Your task to perform on an android device: View the shopping cart on amazon.com. Add alienware area 51 to the cart on amazon.com, then select checkout. Image 0: 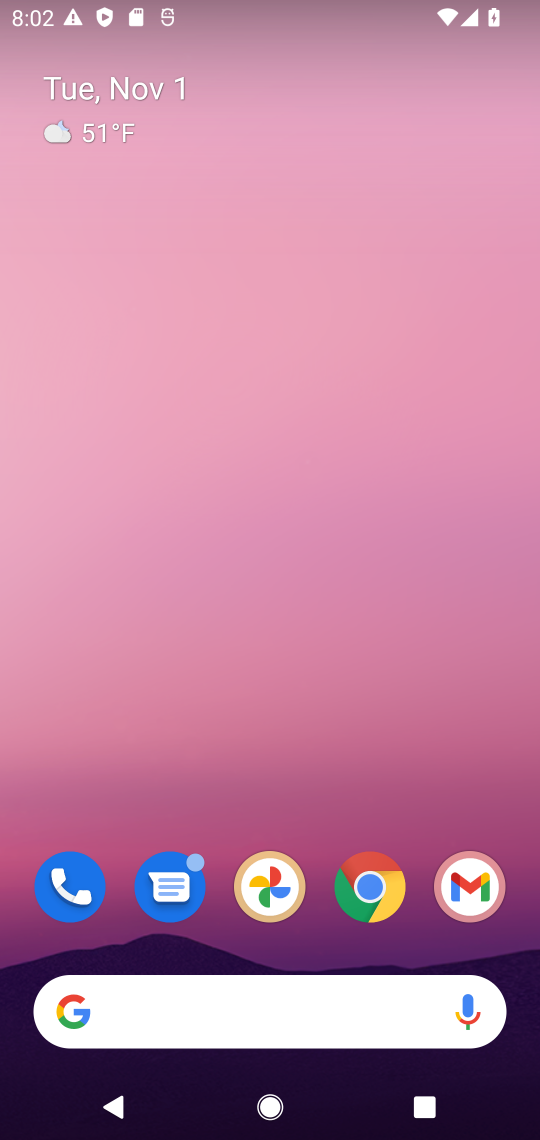
Step 0: drag from (181, 947) to (200, 296)
Your task to perform on an android device: View the shopping cart on amazon.com. Add alienware area 51 to the cart on amazon.com, then select checkout. Image 1: 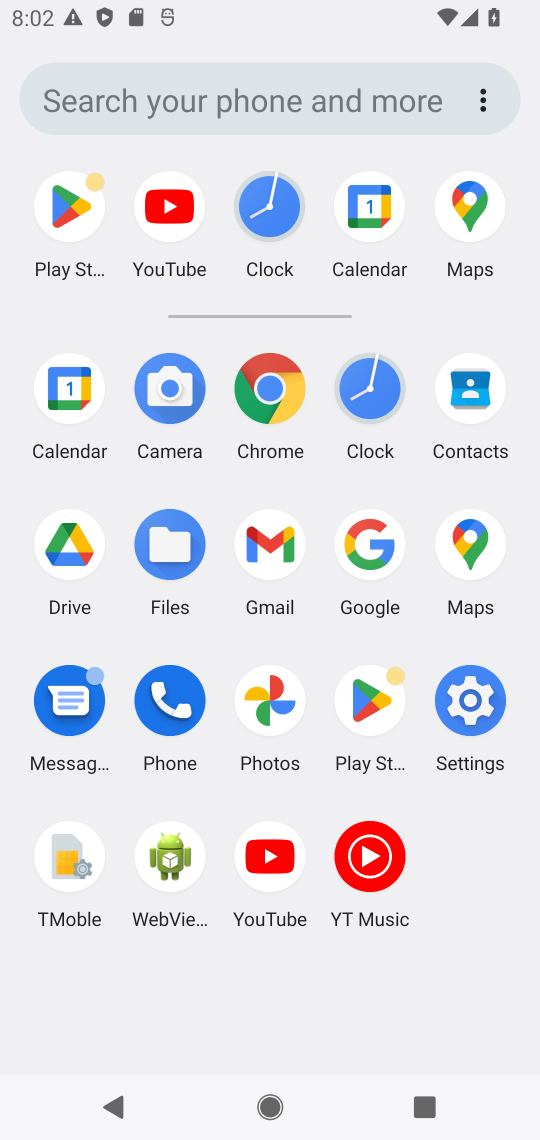
Step 1: click (379, 544)
Your task to perform on an android device: View the shopping cart on amazon.com. Add alienware area 51 to the cart on amazon.com, then select checkout. Image 2: 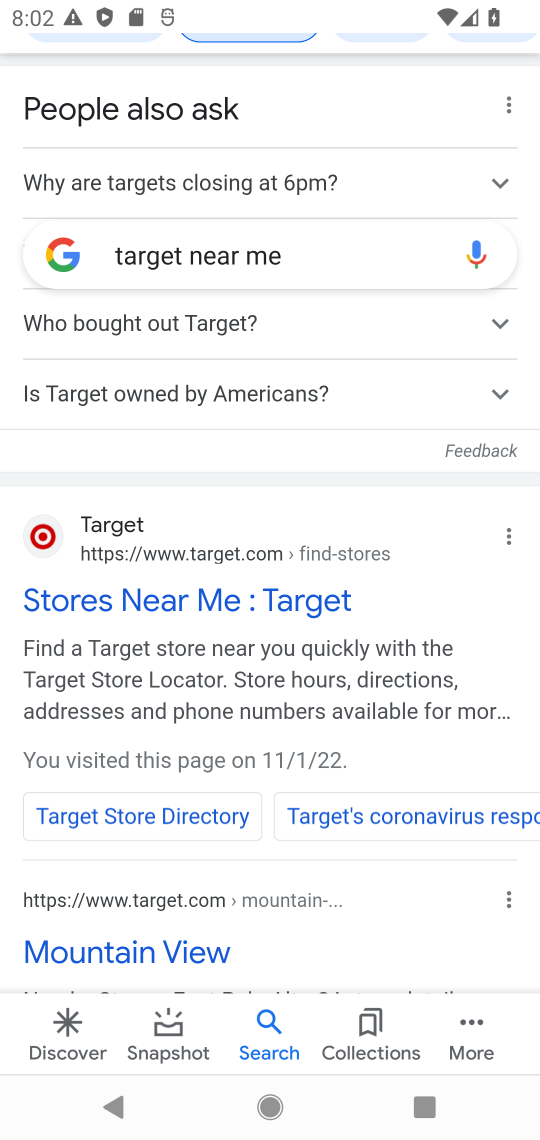
Step 2: click (301, 229)
Your task to perform on an android device: View the shopping cart on amazon.com. Add alienware area 51 to the cart on amazon.com, then select checkout. Image 3: 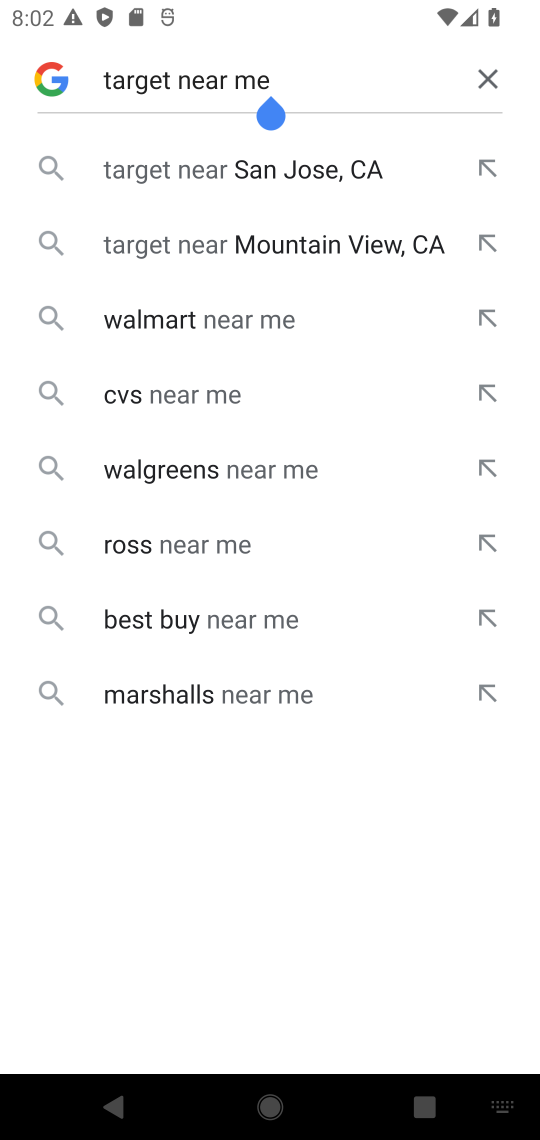
Step 3: click (489, 88)
Your task to perform on an android device: View the shopping cart on amazon.com. Add alienware area 51 to the cart on amazon.com, then select checkout. Image 4: 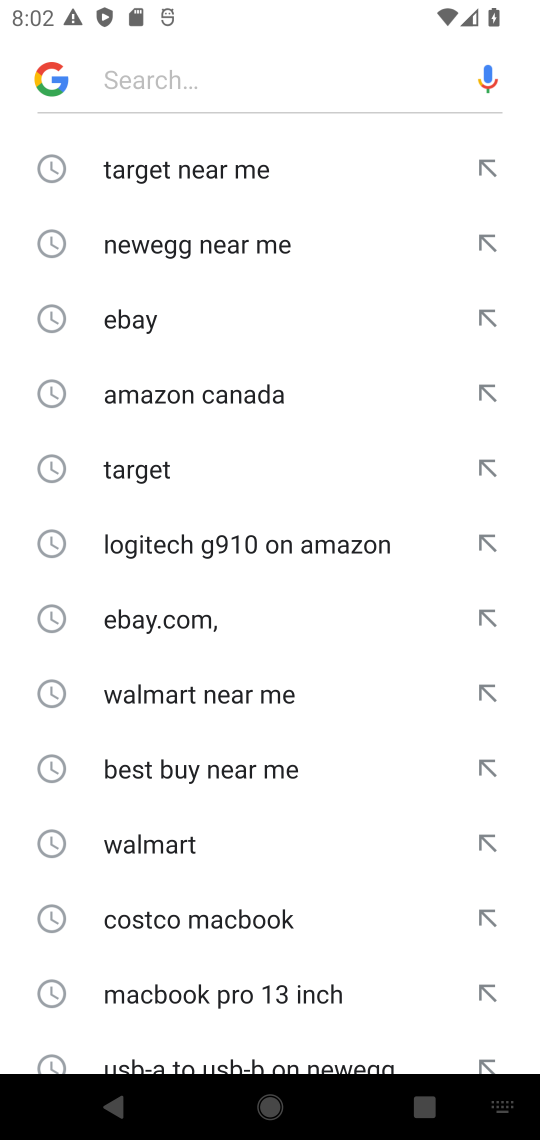
Step 4: click (125, 61)
Your task to perform on an android device: View the shopping cart on amazon.com. Add alienware area 51 to the cart on amazon.com, then select checkout. Image 5: 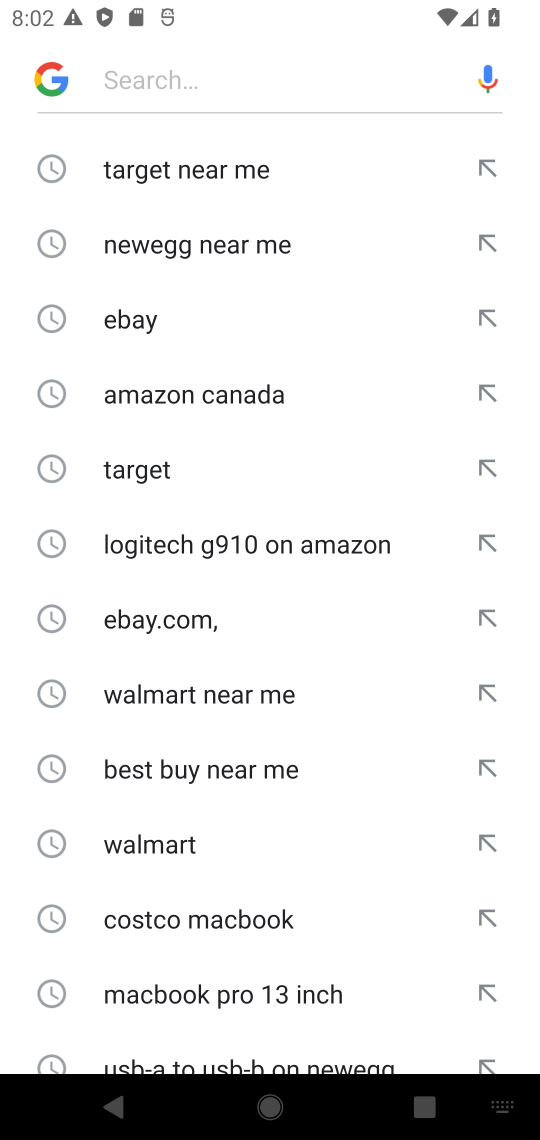
Step 5: type " amazon.com.  "
Your task to perform on an android device: View the shopping cart on amazon.com. Add alienware area 51 to the cart on amazon.com, then select checkout. Image 6: 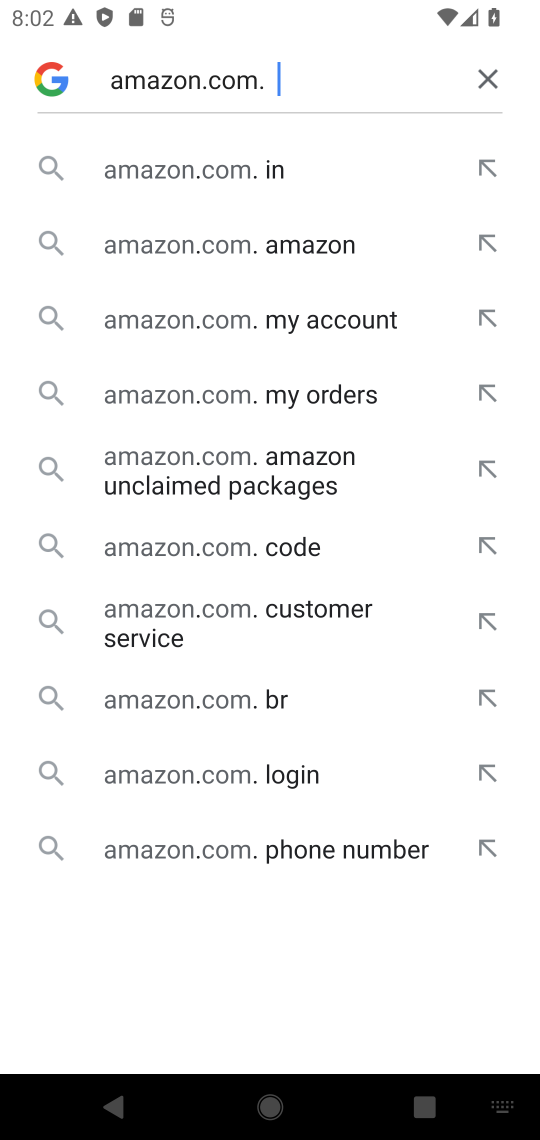
Step 6: click (185, 244)
Your task to perform on an android device: View the shopping cart on amazon.com. Add alienware area 51 to the cart on amazon.com, then select checkout. Image 7: 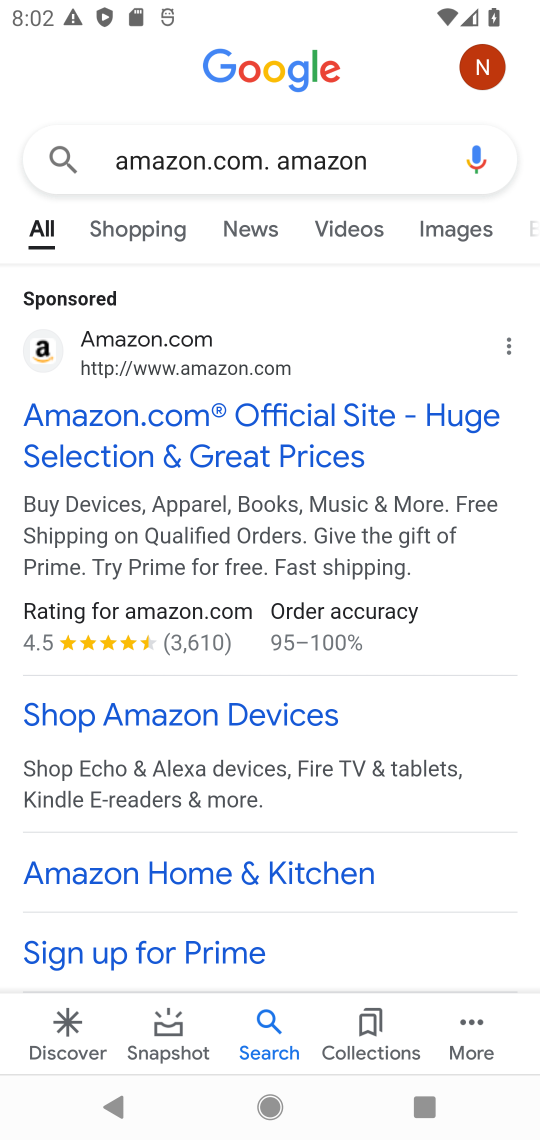
Step 7: click (43, 344)
Your task to perform on an android device: View the shopping cart on amazon.com. Add alienware area 51 to the cart on amazon.com, then select checkout. Image 8: 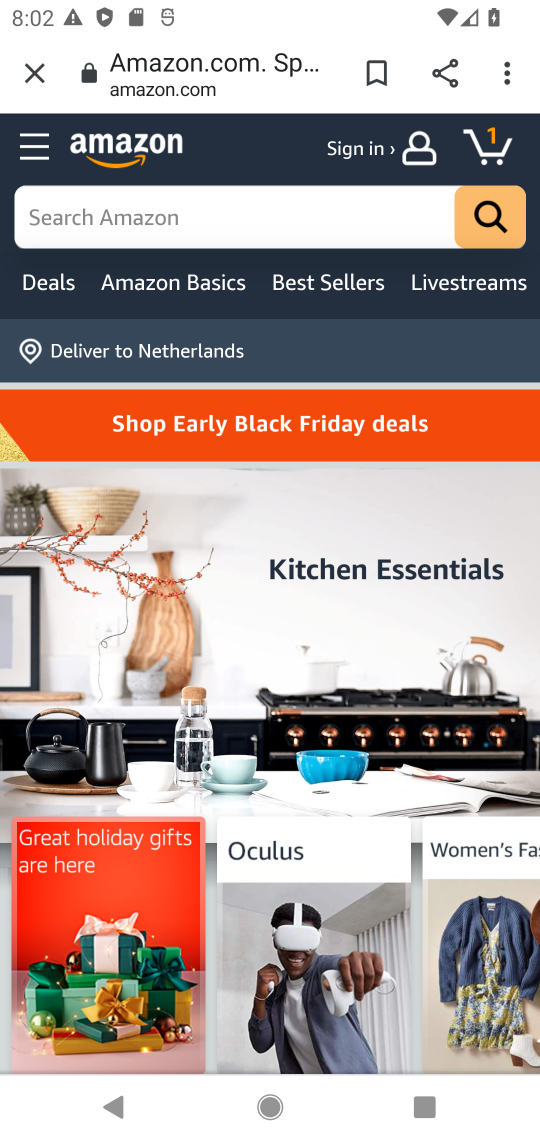
Step 8: click (195, 215)
Your task to perform on an android device: View the shopping cart on amazon.com. Add alienware area 51 to the cart on amazon.com, then select checkout. Image 9: 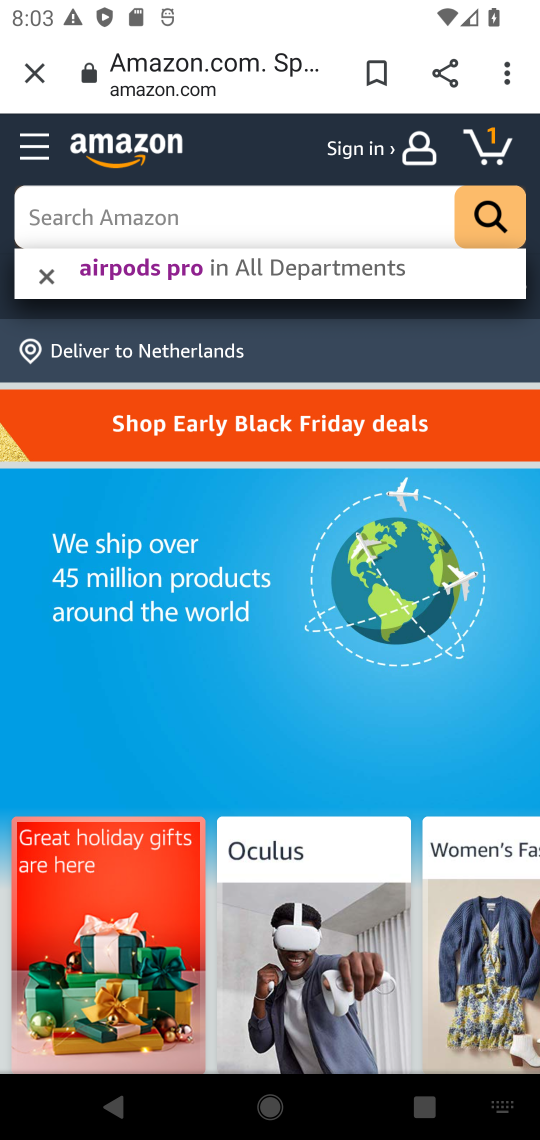
Step 9: click (128, 205)
Your task to perform on an android device: View the shopping cart on amazon.com. Add alienware area 51 to the cart on amazon.com, then select checkout. Image 10: 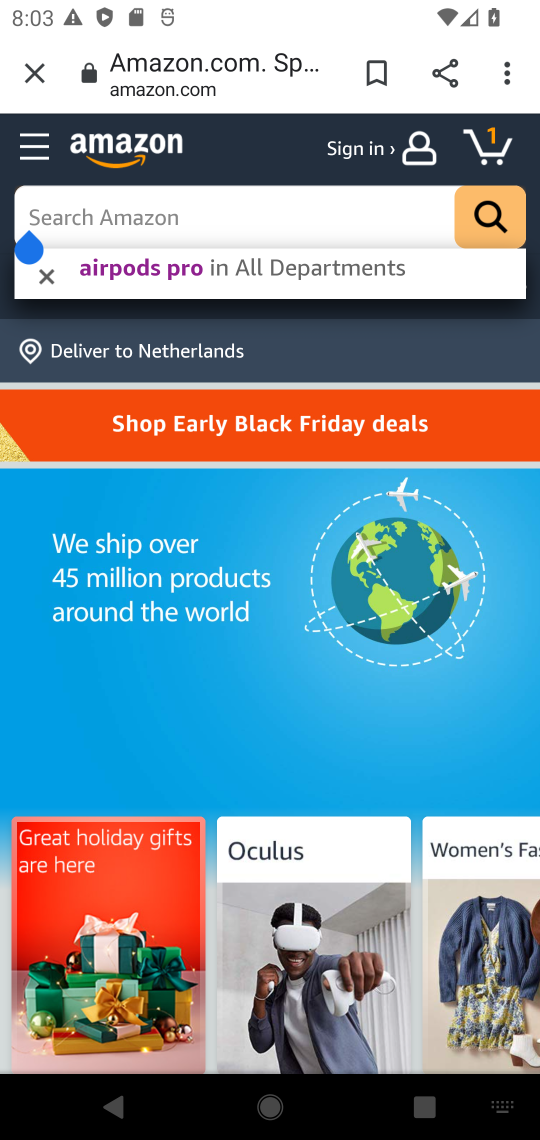
Step 10: type "alienware area 51  "
Your task to perform on an android device: View the shopping cart on amazon.com. Add alienware area 51 to the cart on amazon.com, then select checkout. Image 11: 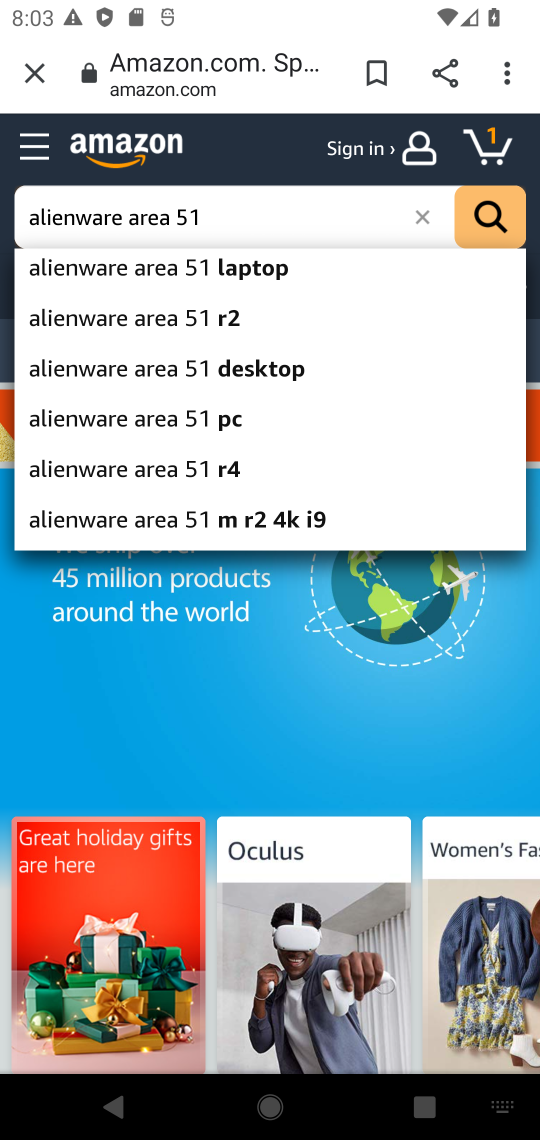
Step 11: click (226, 262)
Your task to perform on an android device: View the shopping cart on amazon.com. Add alienware area 51 to the cart on amazon.com, then select checkout. Image 12: 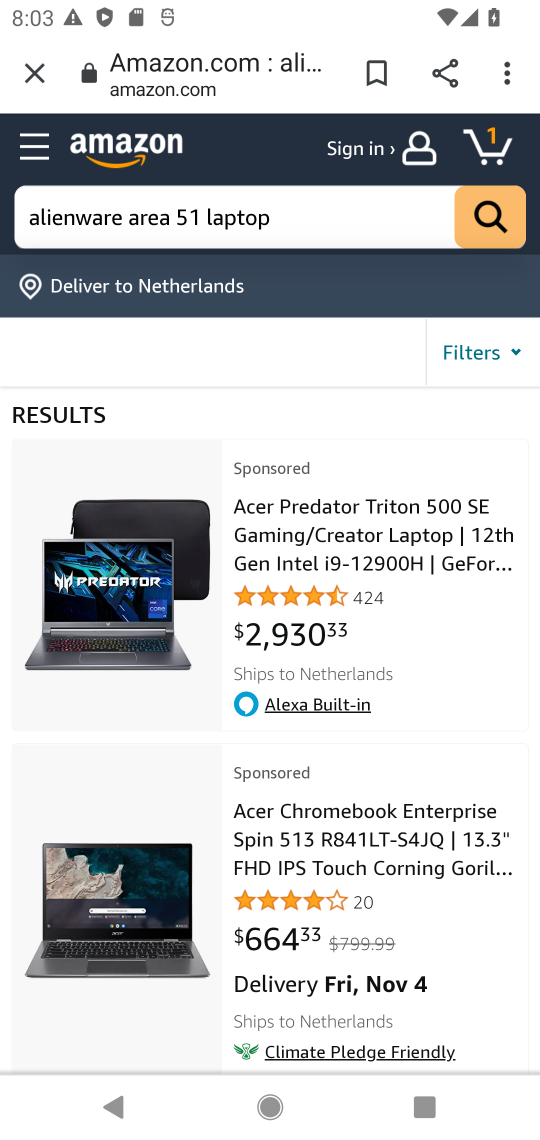
Step 12: click (322, 525)
Your task to perform on an android device: View the shopping cart on amazon.com. Add alienware area 51 to the cart on amazon.com, then select checkout. Image 13: 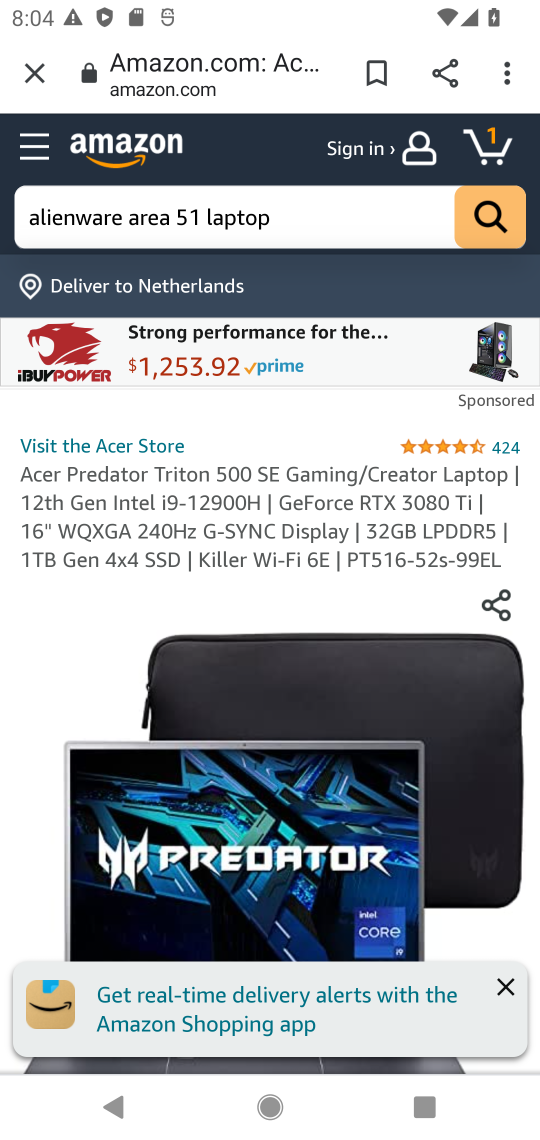
Step 13: click (489, 984)
Your task to perform on an android device: View the shopping cart on amazon.com. Add alienware area 51 to the cart on amazon.com, then select checkout. Image 14: 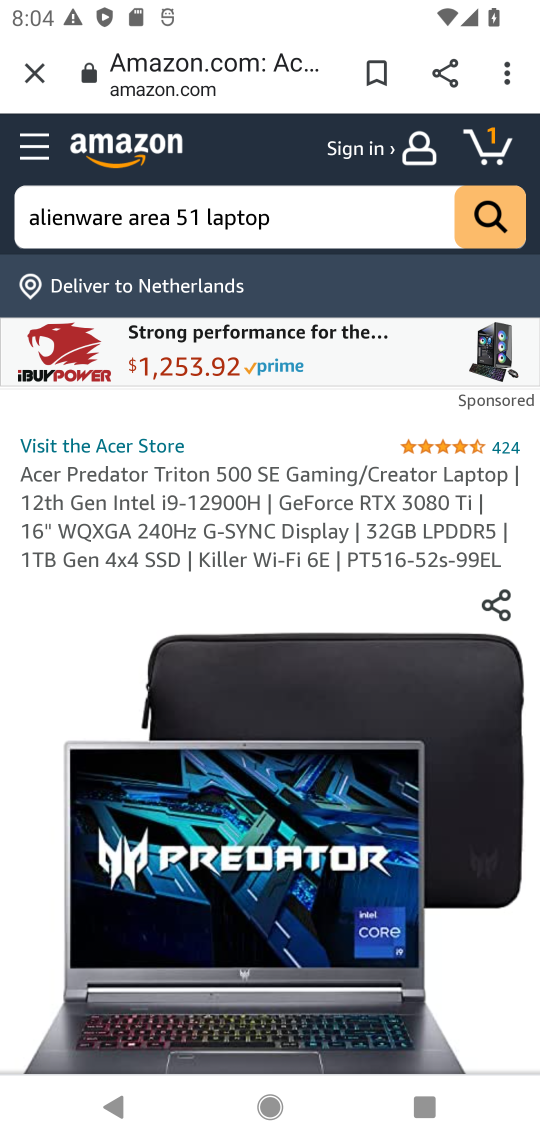
Step 14: drag from (253, 819) to (291, 408)
Your task to perform on an android device: View the shopping cart on amazon.com. Add alienware area 51 to the cart on amazon.com, then select checkout. Image 15: 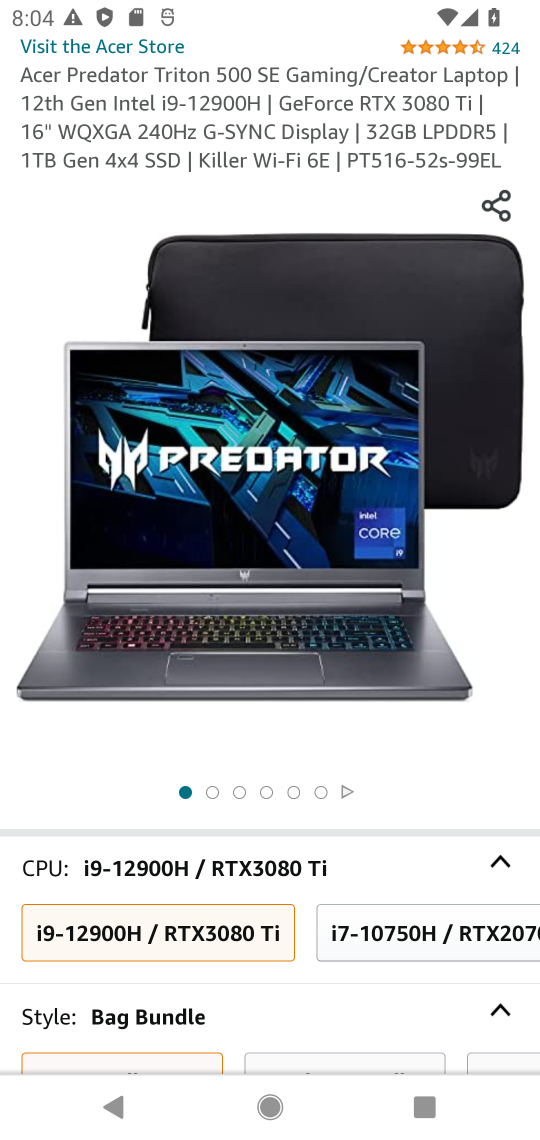
Step 15: drag from (378, 898) to (386, 217)
Your task to perform on an android device: View the shopping cart on amazon.com. Add alienware area 51 to the cart on amazon.com, then select checkout. Image 16: 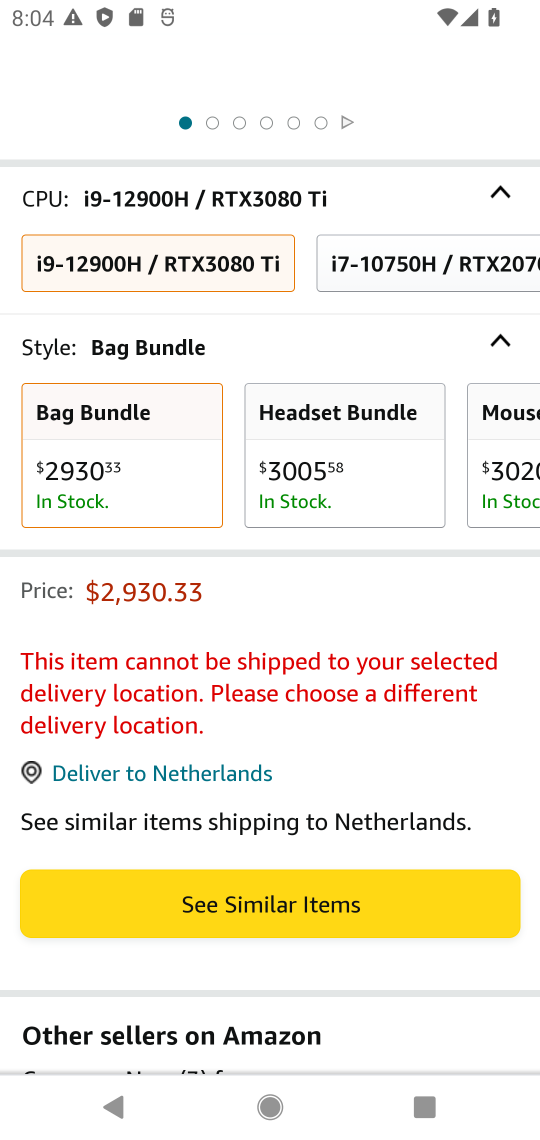
Step 16: drag from (277, 854) to (298, 398)
Your task to perform on an android device: View the shopping cart on amazon.com. Add alienware area 51 to the cart on amazon.com, then select checkout. Image 17: 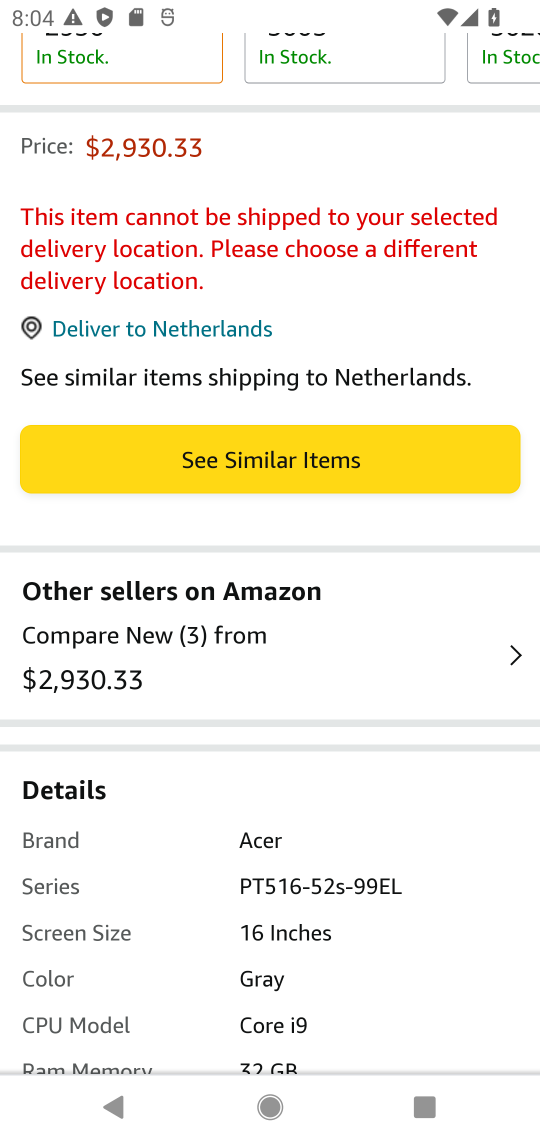
Step 17: drag from (353, 958) to (343, 235)
Your task to perform on an android device: View the shopping cart on amazon.com. Add alienware area 51 to the cart on amazon.com, then select checkout. Image 18: 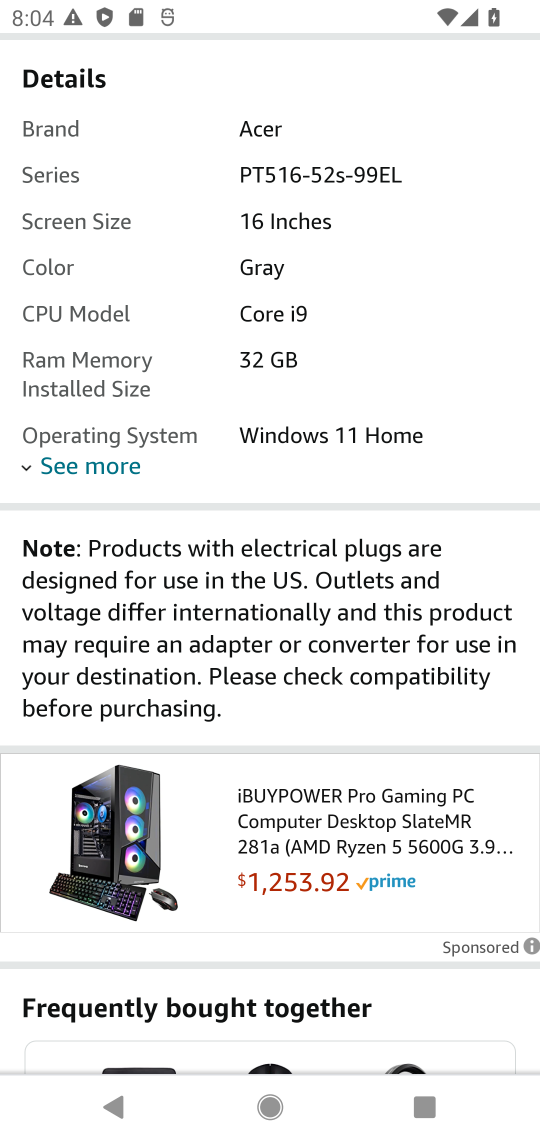
Step 18: drag from (355, 721) to (327, 236)
Your task to perform on an android device: View the shopping cart on amazon.com. Add alienware area 51 to the cart on amazon.com, then select checkout. Image 19: 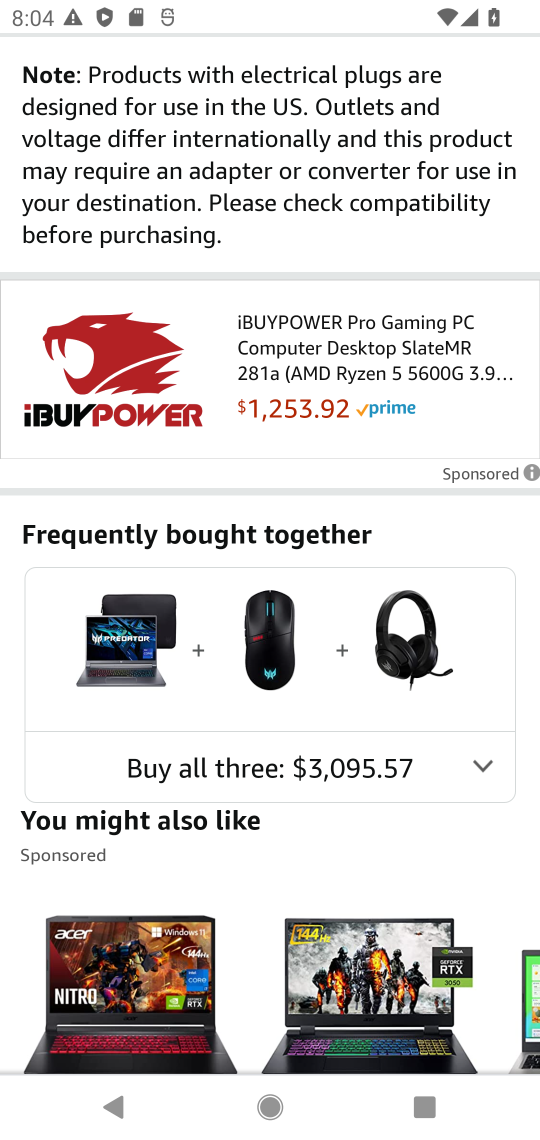
Step 19: drag from (305, 540) to (292, 161)
Your task to perform on an android device: View the shopping cart on amazon.com. Add alienware area 51 to the cart on amazon.com, then select checkout. Image 20: 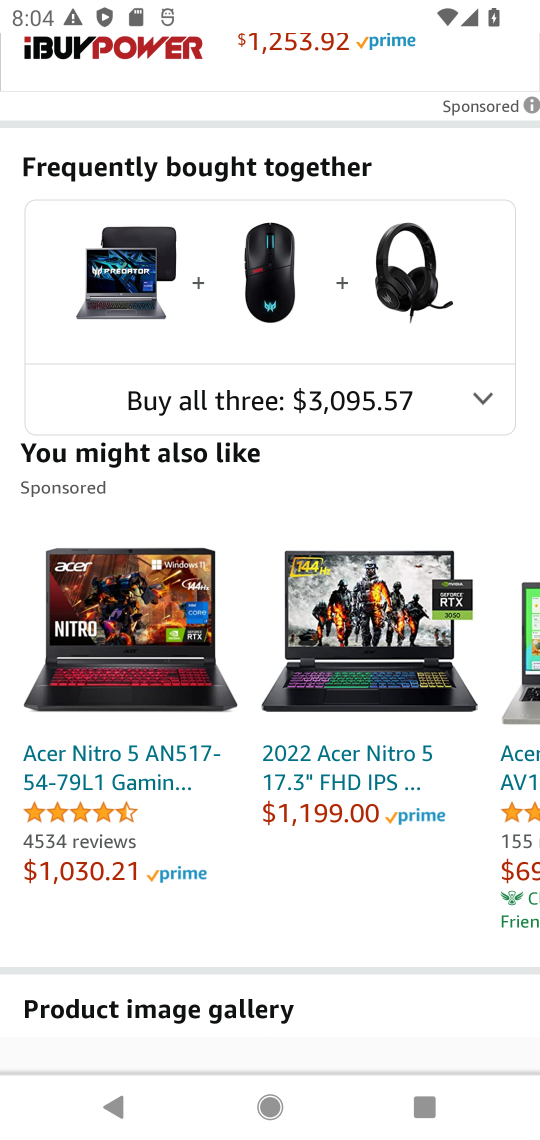
Step 20: drag from (186, 141) to (183, 1022)
Your task to perform on an android device: View the shopping cart on amazon.com. Add alienware area 51 to the cart on amazon.com, then select checkout. Image 21: 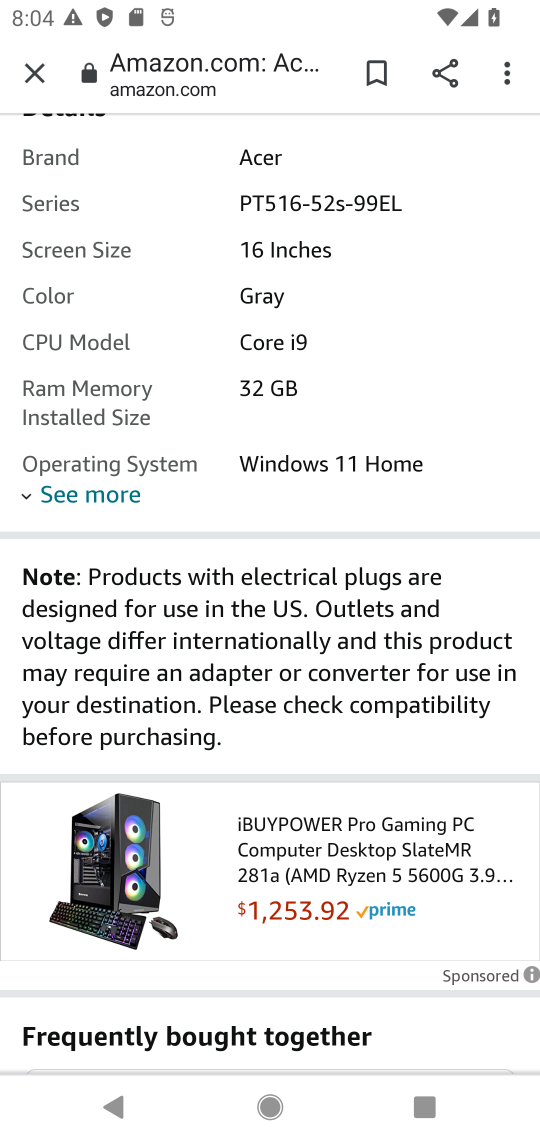
Step 21: drag from (316, 266) to (304, 740)
Your task to perform on an android device: View the shopping cart on amazon.com. Add alienware area 51 to the cart on amazon.com, then select checkout. Image 22: 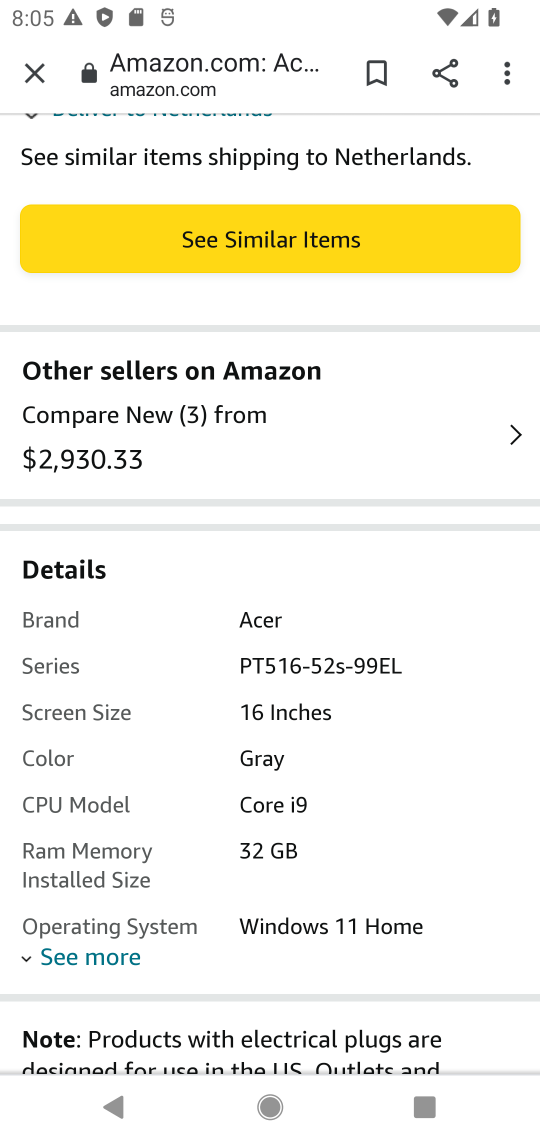
Step 22: drag from (302, 305) to (238, 669)
Your task to perform on an android device: View the shopping cart on amazon.com. Add alienware area 51 to the cart on amazon.com, then select checkout. Image 23: 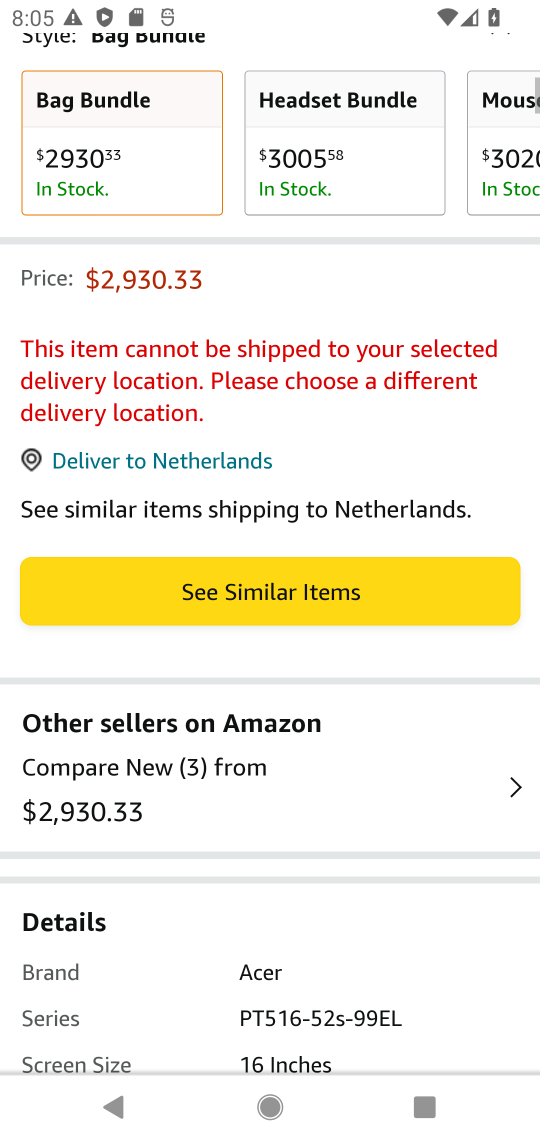
Step 23: drag from (266, 314) to (248, 450)
Your task to perform on an android device: View the shopping cart on amazon.com. Add alienware area 51 to the cart on amazon.com, then select checkout. Image 24: 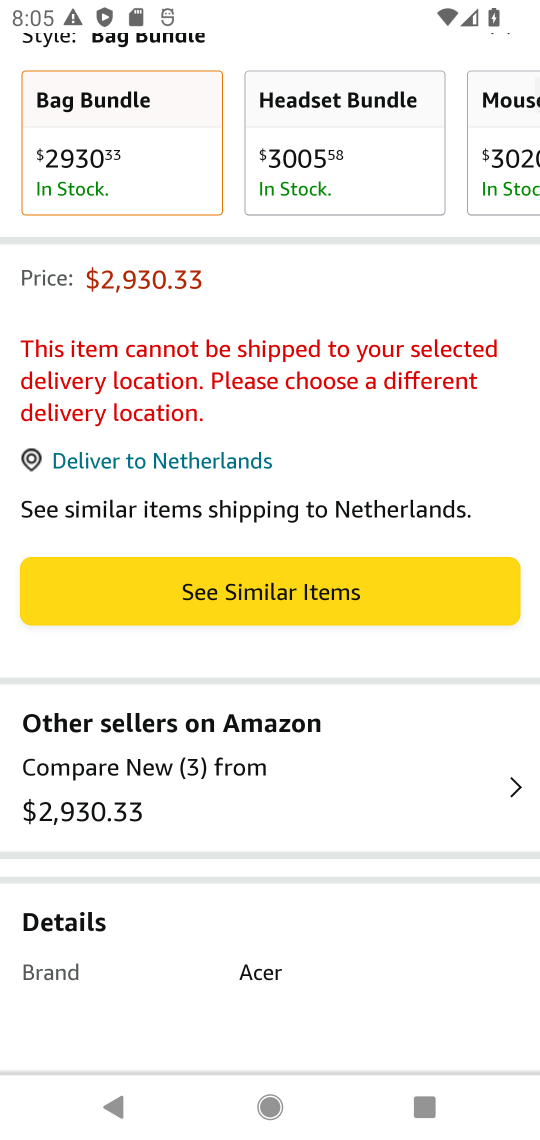
Step 24: drag from (227, 424) to (210, 887)
Your task to perform on an android device: View the shopping cart on amazon.com. Add alienware area 51 to the cart on amazon.com, then select checkout. Image 25: 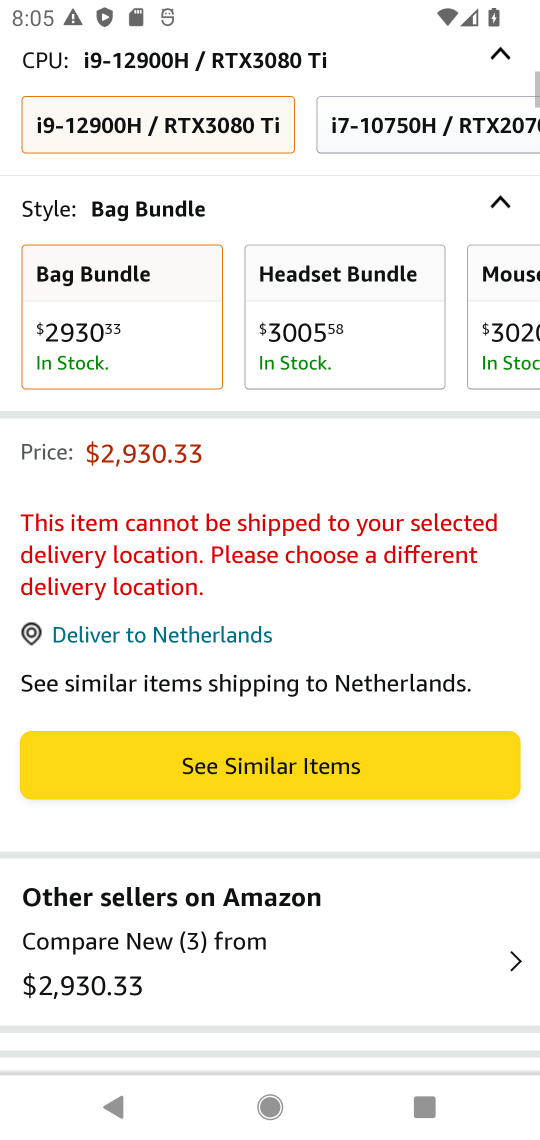
Step 25: click (274, 716)
Your task to perform on an android device: View the shopping cart on amazon.com. Add alienware area 51 to the cart on amazon.com, then select checkout. Image 26: 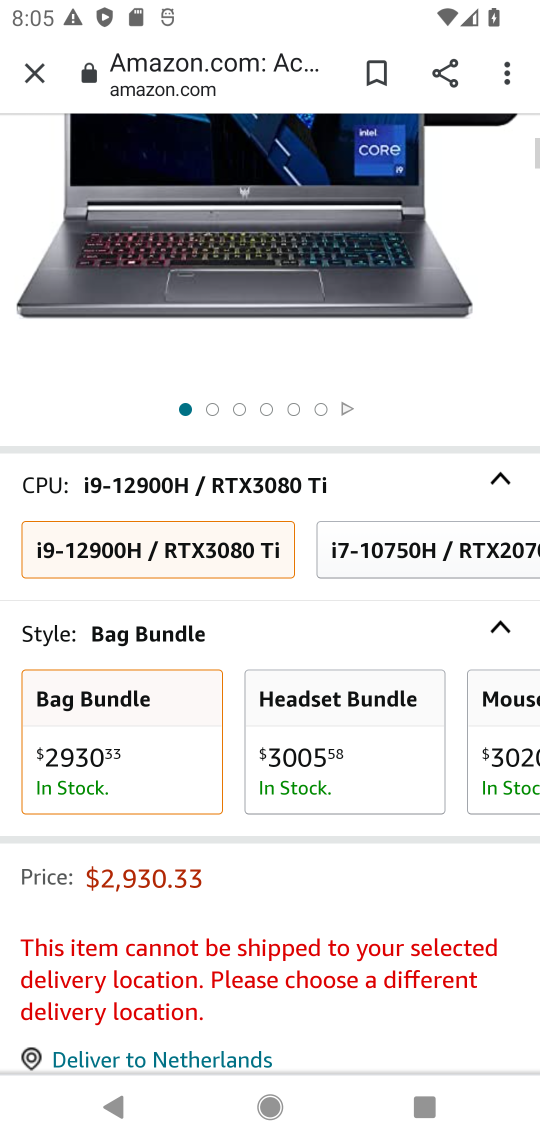
Step 26: drag from (288, 664) to (337, 845)
Your task to perform on an android device: View the shopping cart on amazon.com. Add alienware area 51 to the cart on amazon.com, then select checkout. Image 27: 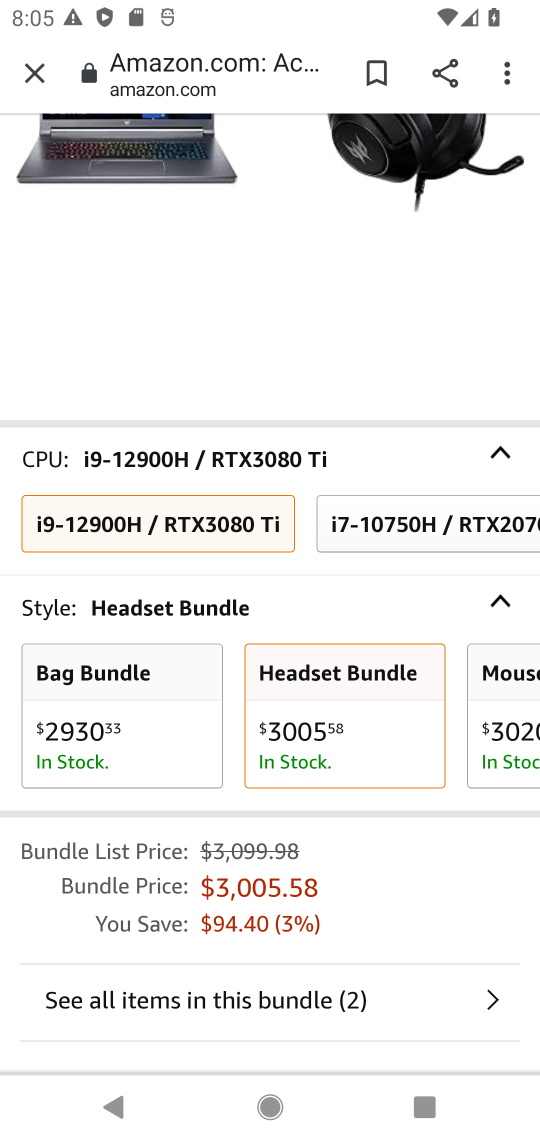
Step 27: press back button
Your task to perform on an android device: View the shopping cart on amazon.com. Add alienware area 51 to the cart on amazon.com, then select checkout. Image 28: 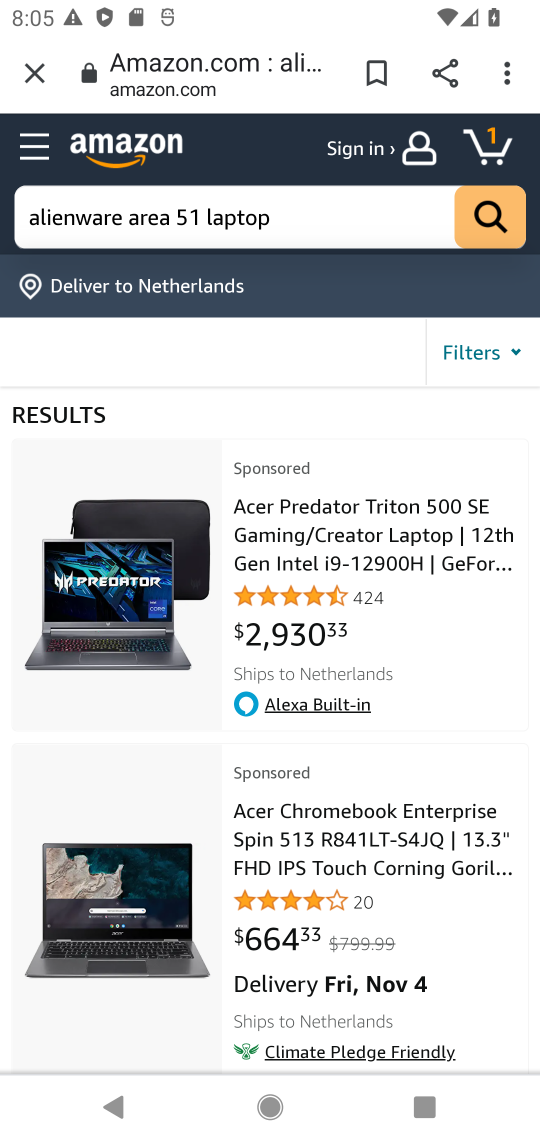
Step 28: click (139, 880)
Your task to perform on an android device: View the shopping cart on amazon.com. Add alienware area 51 to the cart on amazon.com, then select checkout. Image 29: 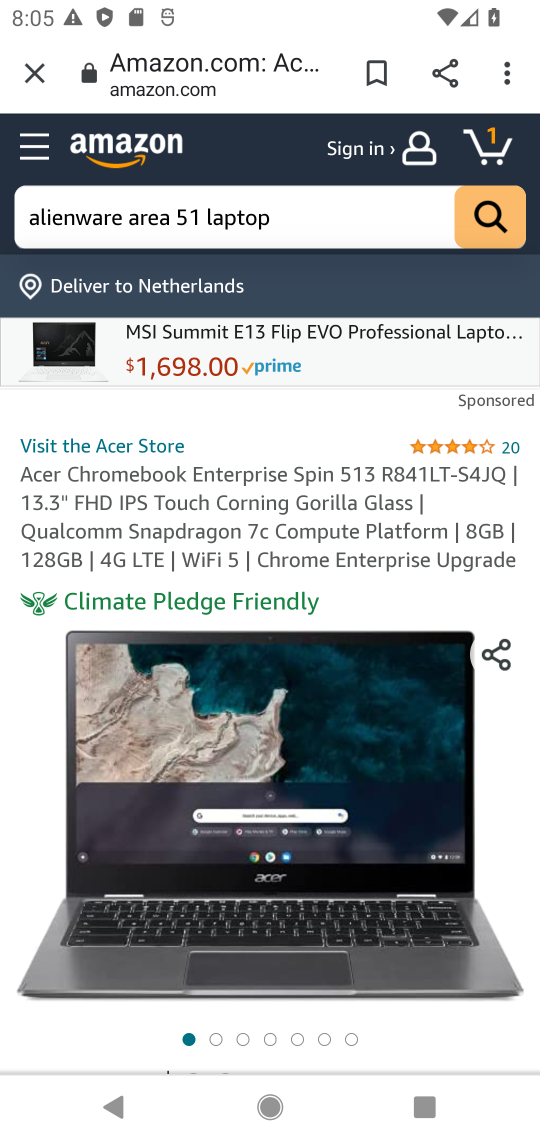
Step 29: click (274, 397)
Your task to perform on an android device: View the shopping cart on amazon.com. Add alienware area 51 to the cart on amazon.com, then select checkout. Image 30: 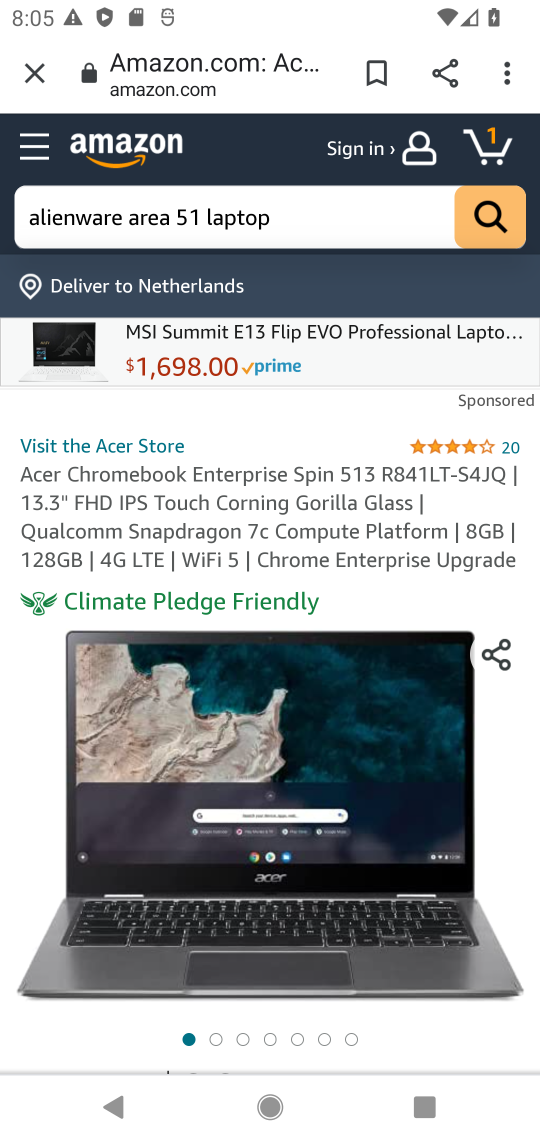
Step 30: drag from (253, 497) to (388, 652)
Your task to perform on an android device: View the shopping cart on amazon.com. Add alienware area 51 to the cart on amazon.com, then select checkout. Image 31: 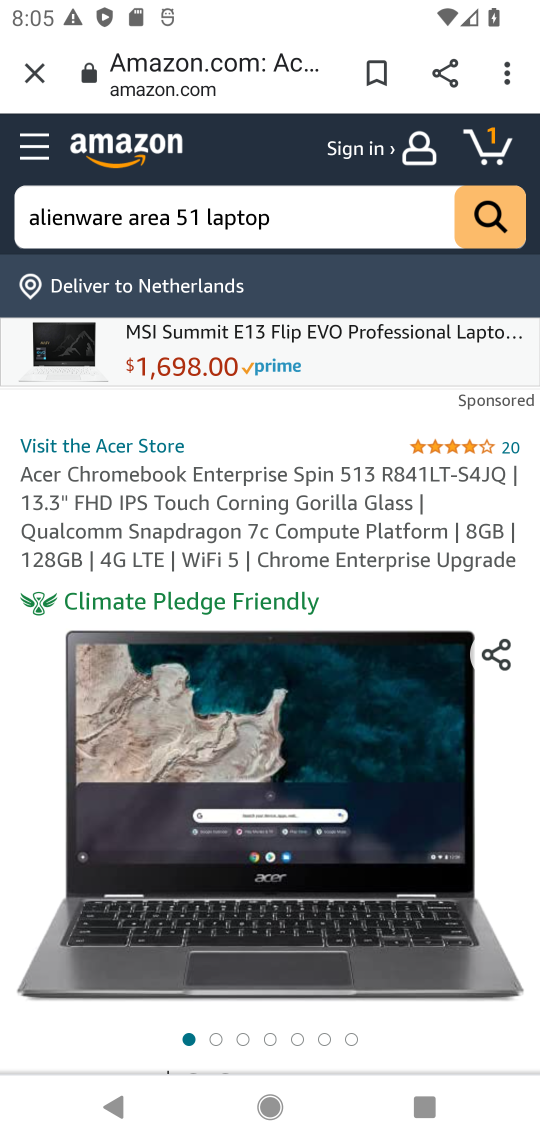
Step 31: drag from (192, 613) to (179, 34)
Your task to perform on an android device: View the shopping cart on amazon.com. Add alienware area 51 to the cart on amazon.com, then select checkout. Image 32: 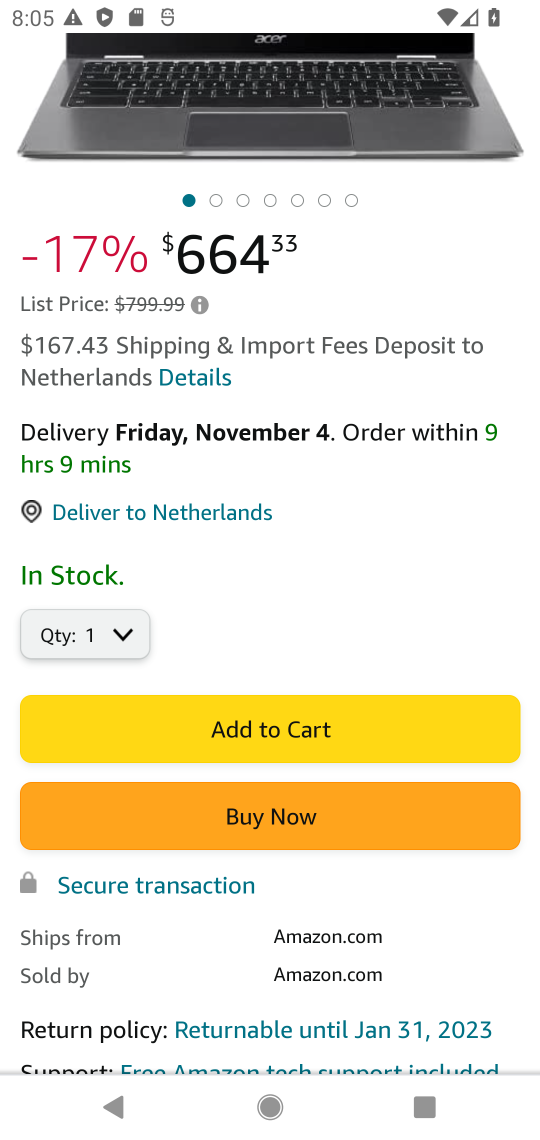
Step 32: click (266, 724)
Your task to perform on an android device: View the shopping cart on amazon.com. Add alienware area 51 to the cart on amazon.com, then select checkout. Image 33: 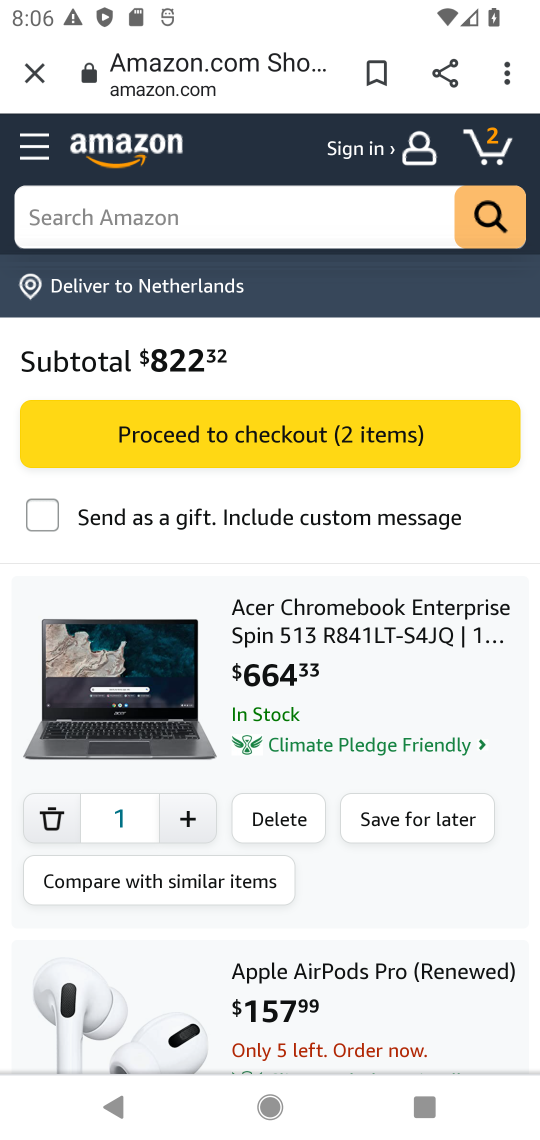
Step 33: task complete